Your task to perform on an android device: check out phone information Image 0: 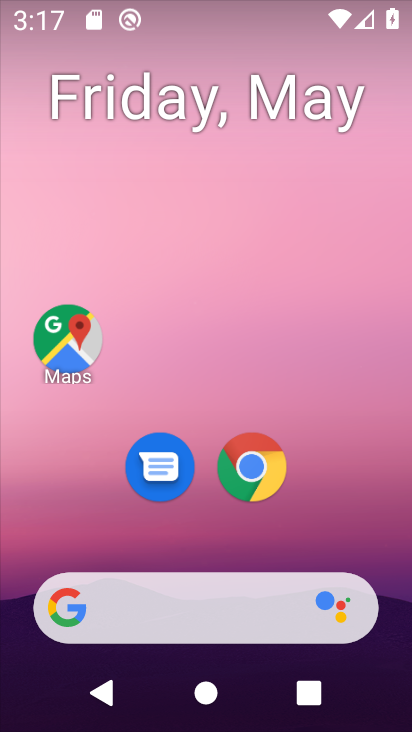
Step 0: drag from (314, 528) to (259, 113)
Your task to perform on an android device: check out phone information Image 1: 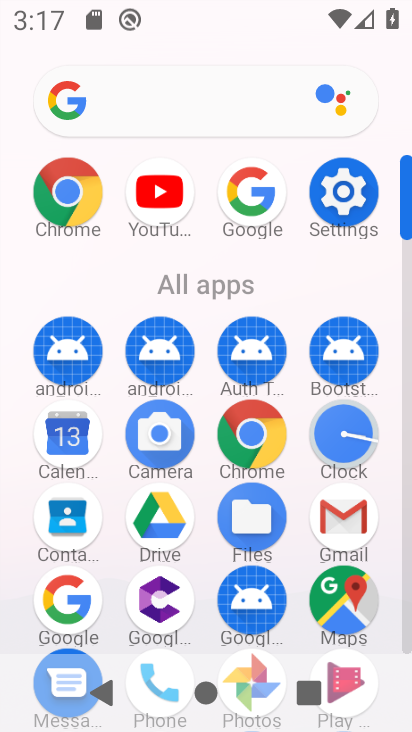
Step 1: click (333, 186)
Your task to perform on an android device: check out phone information Image 2: 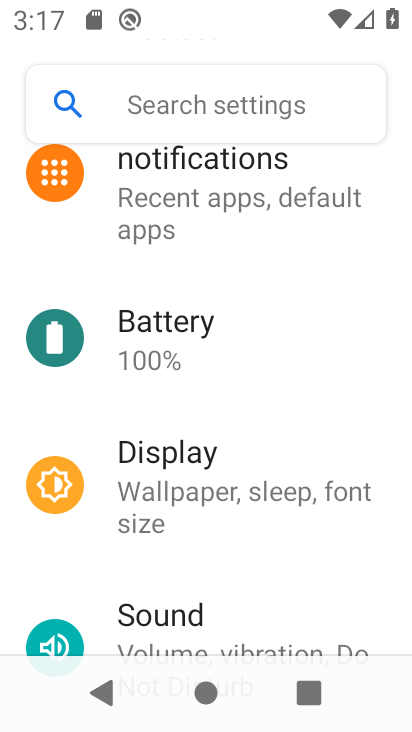
Step 2: drag from (265, 609) to (252, 145)
Your task to perform on an android device: check out phone information Image 3: 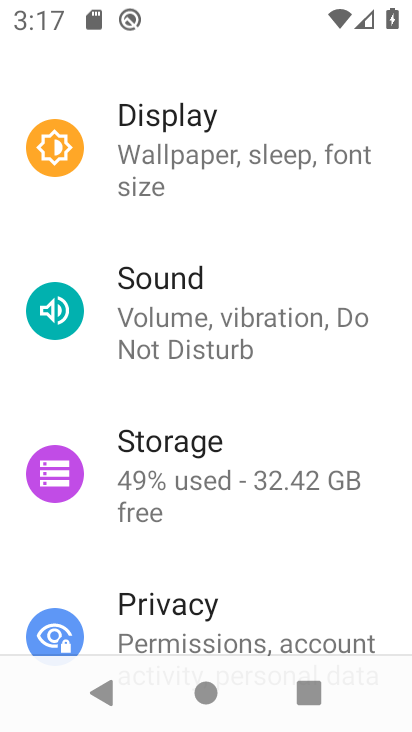
Step 3: drag from (261, 513) to (253, 99)
Your task to perform on an android device: check out phone information Image 4: 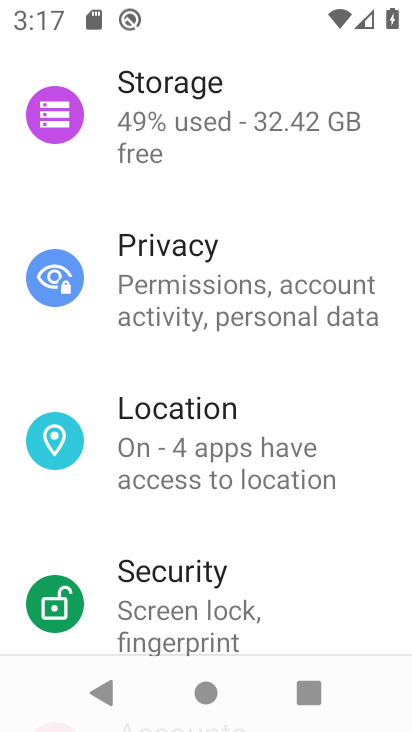
Step 4: drag from (246, 513) to (242, 162)
Your task to perform on an android device: check out phone information Image 5: 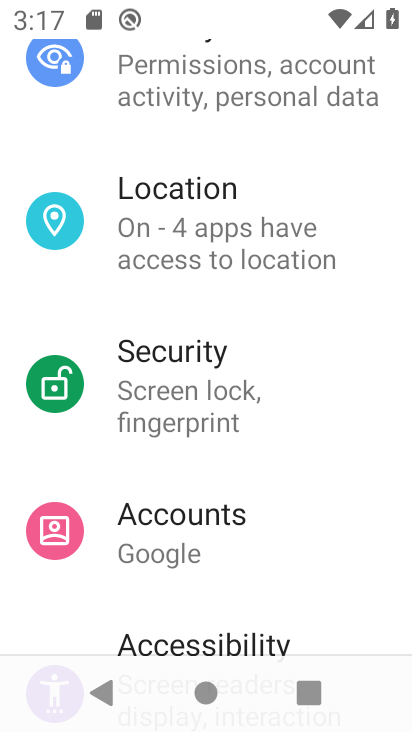
Step 5: drag from (269, 481) to (255, 131)
Your task to perform on an android device: check out phone information Image 6: 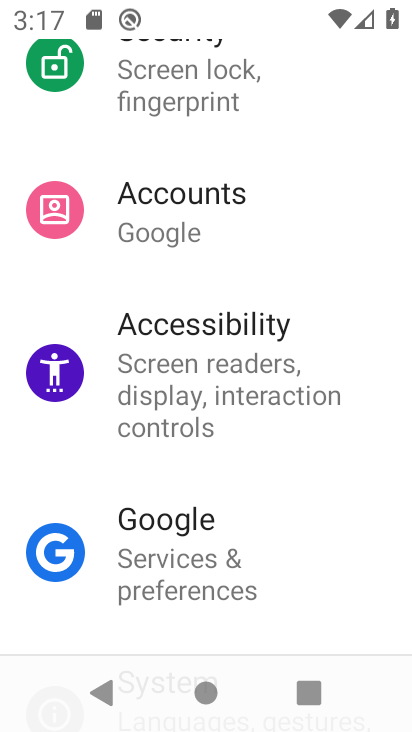
Step 6: drag from (266, 508) to (251, 126)
Your task to perform on an android device: check out phone information Image 7: 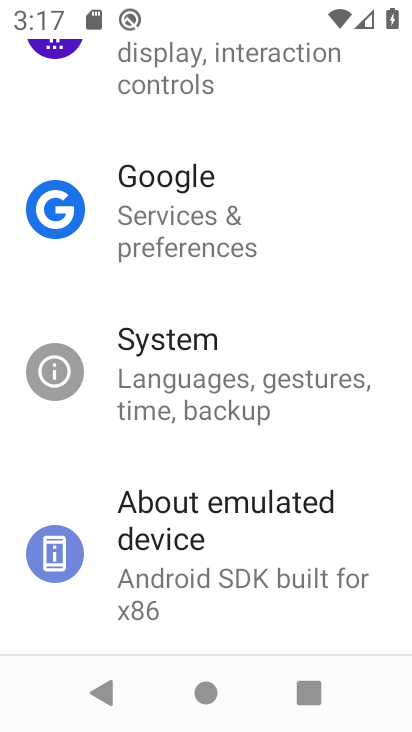
Step 7: drag from (250, 512) to (240, 182)
Your task to perform on an android device: check out phone information Image 8: 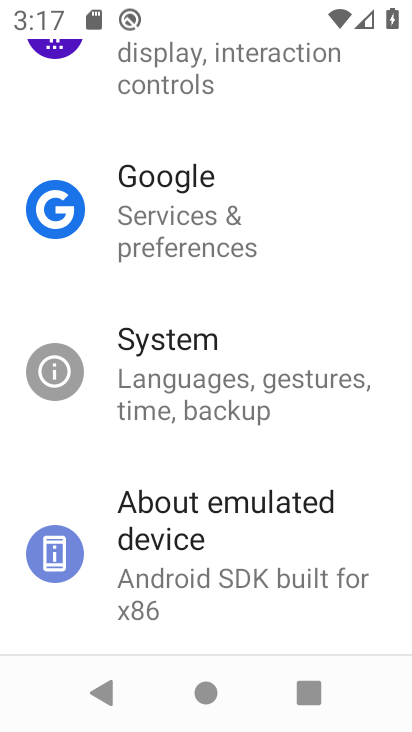
Step 8: click (225, 513)
Your task to perform on an android device: check out phone information Image 9: 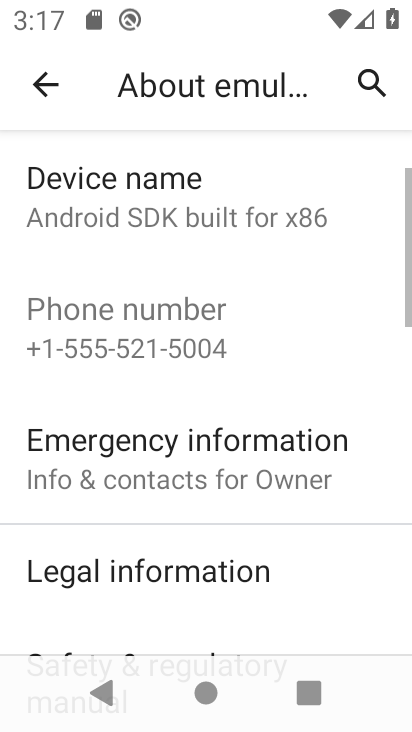
Step 9: task complete